Your task to perform on an android device: Open internet settings Image 0: 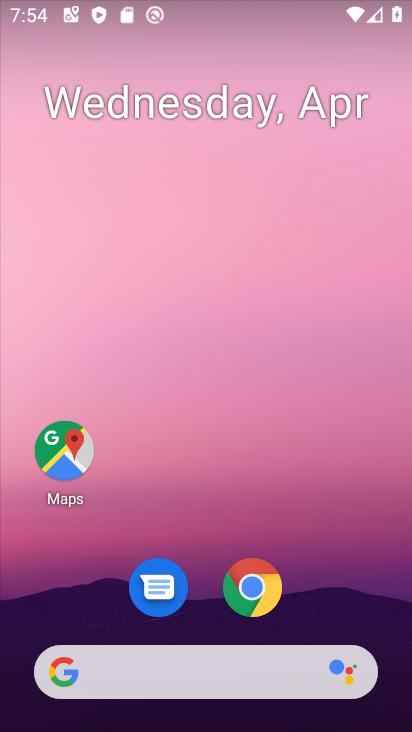
Step 0: drag from (341, 567) to (282, 8)
Your task to perform on an android device: Open internet settings Image 1: 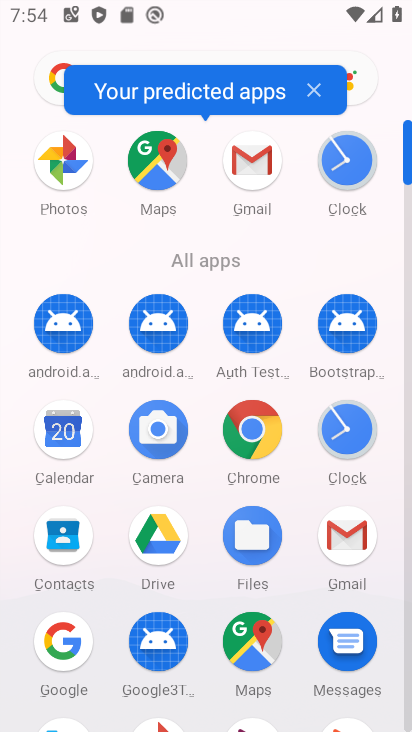
Step 1: drag from (196, 261) to (186, 0)
Your task to perform on an android device: Open internet settings Image 2: 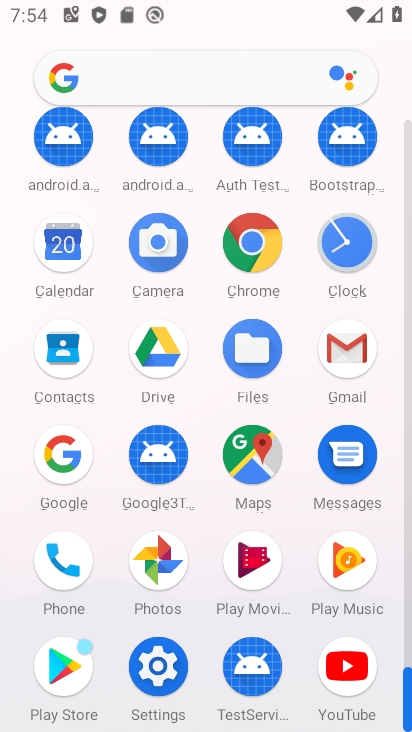
Step 2: click (165, 686)
Your task to perform on an android device: Open internet settings Image 3: 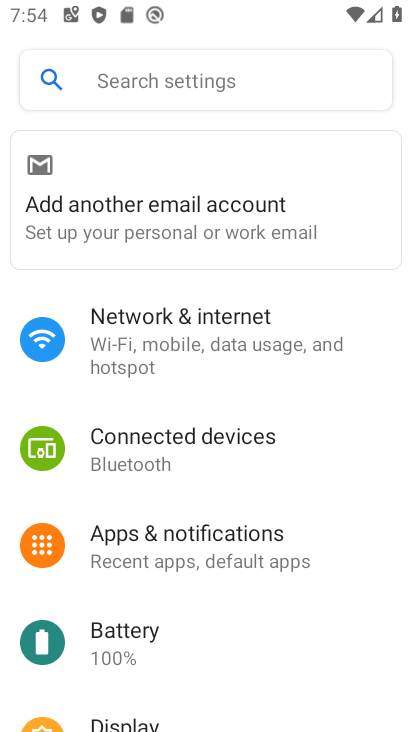
Step 3: click (178, 328)
Your task to perform on an android device: Open internet settings Image 4: 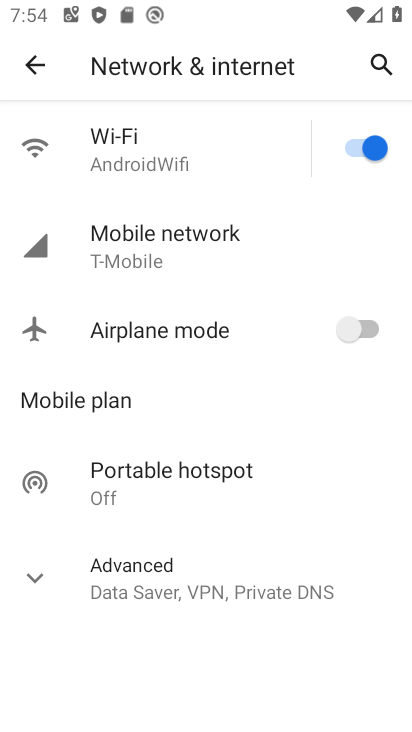
Step 4: task complete